Your task to perform on an android device: open app "ColorNote Notepad Notes" (install if not already installed), go to login, and select forgot password Image 0: 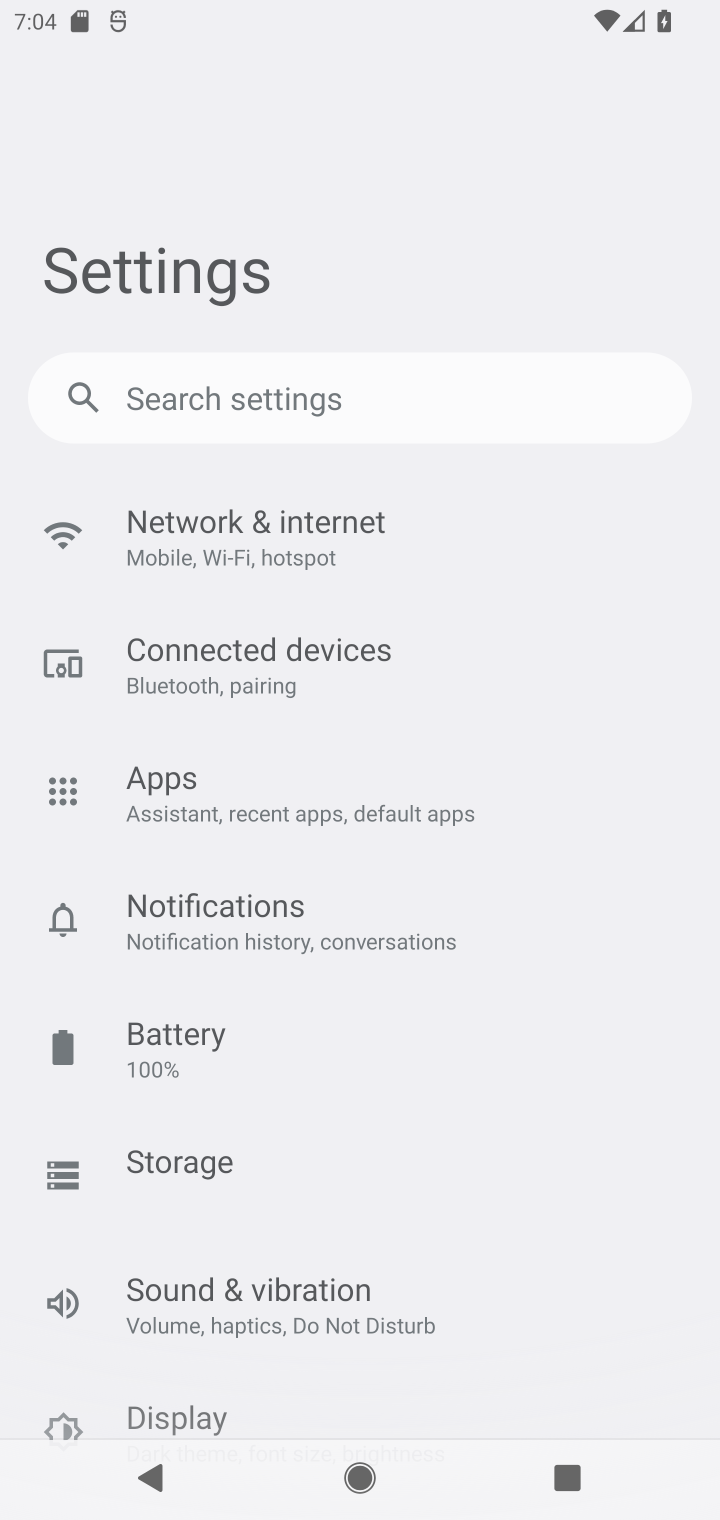
Step 0: press home button
Your task to perform on an android device: open app "ColorNote Notepad Notes" (install if not already installed), go to login, and select forgot password Image 1: 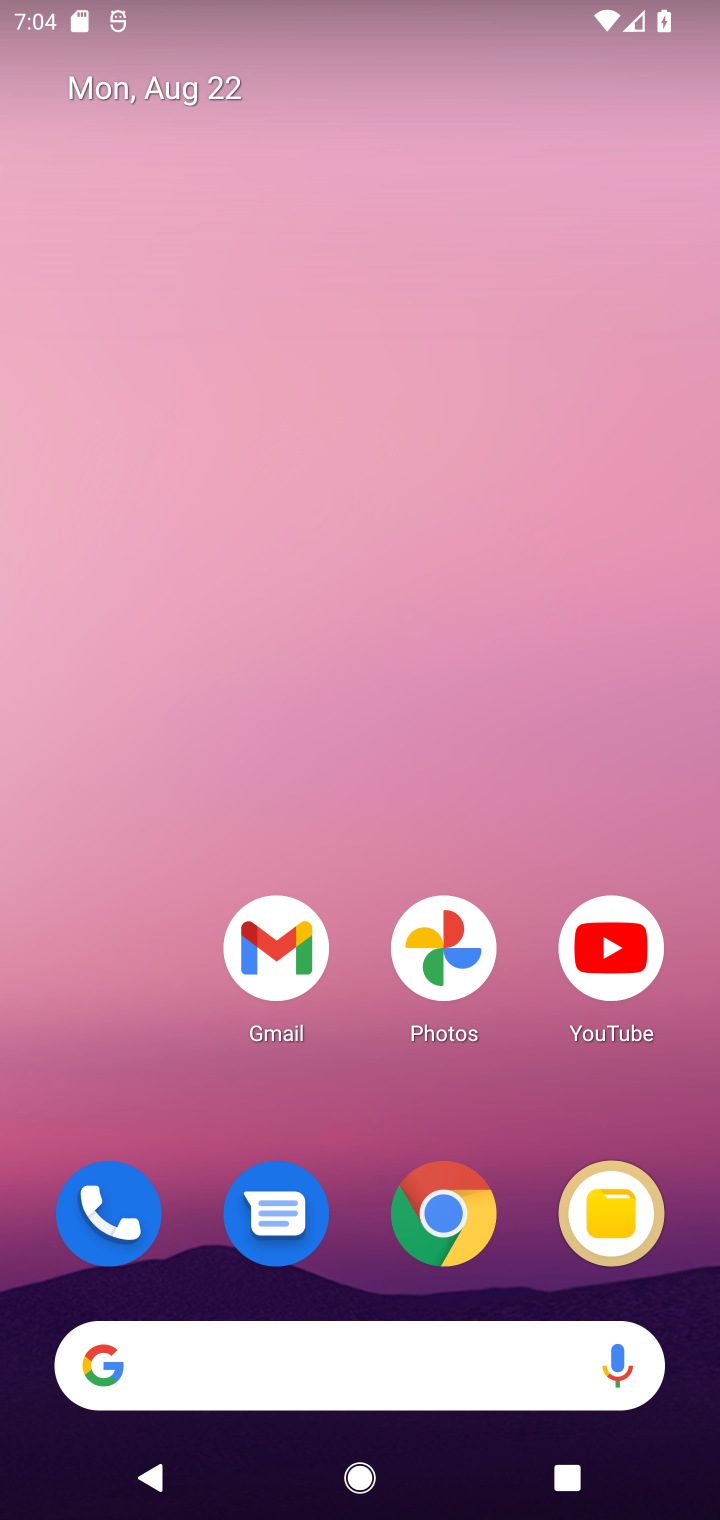
Step 1: drag from (364, 1136) to (440, 4)
Your task to perform on an android device: open app "ColorNote Notepad Notes" (install if not already installed), go to login, and select forgot password Image 2: 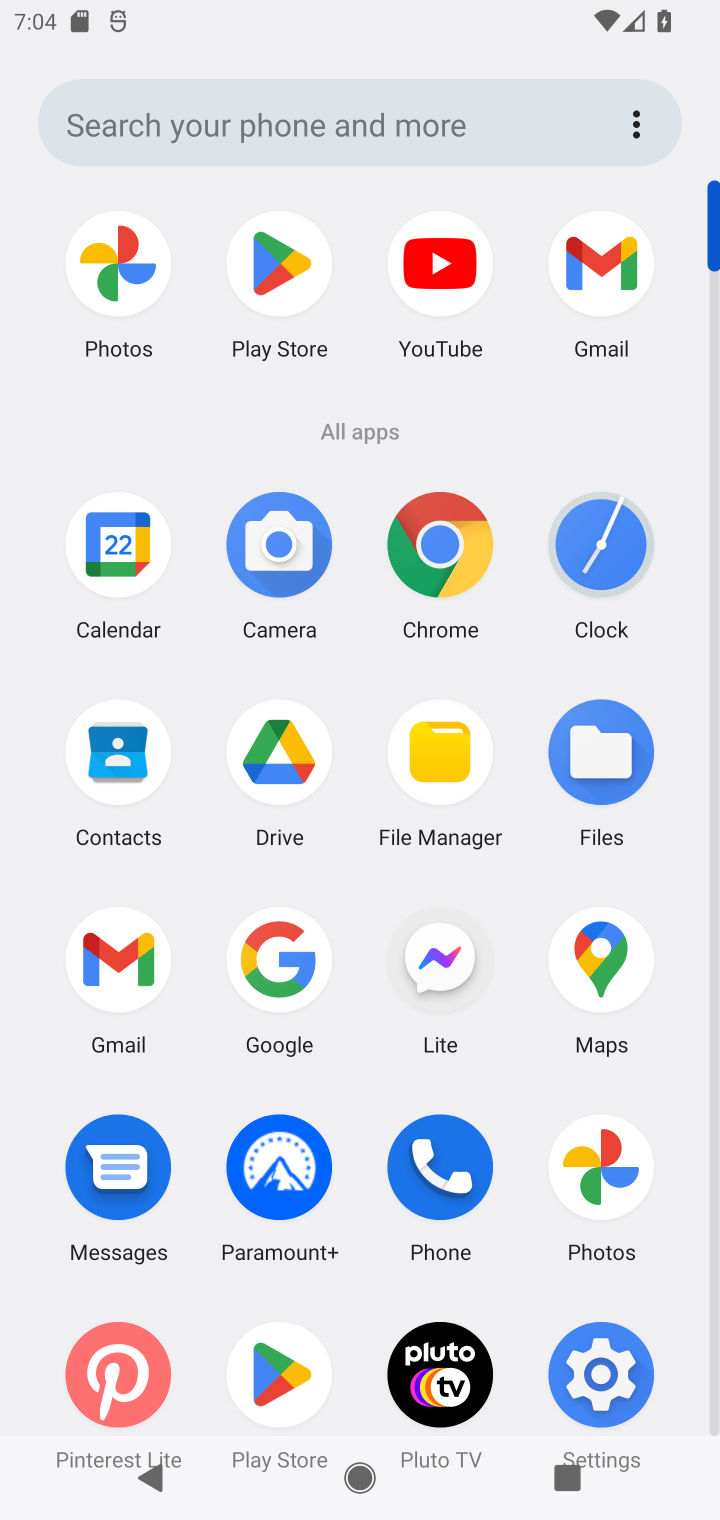
Step 2: click (276, 241)
Your task to perform on an android device: open app "ColorNote Notepad Notes" (install if not already installed), go to login, and select forgot password Image 3: 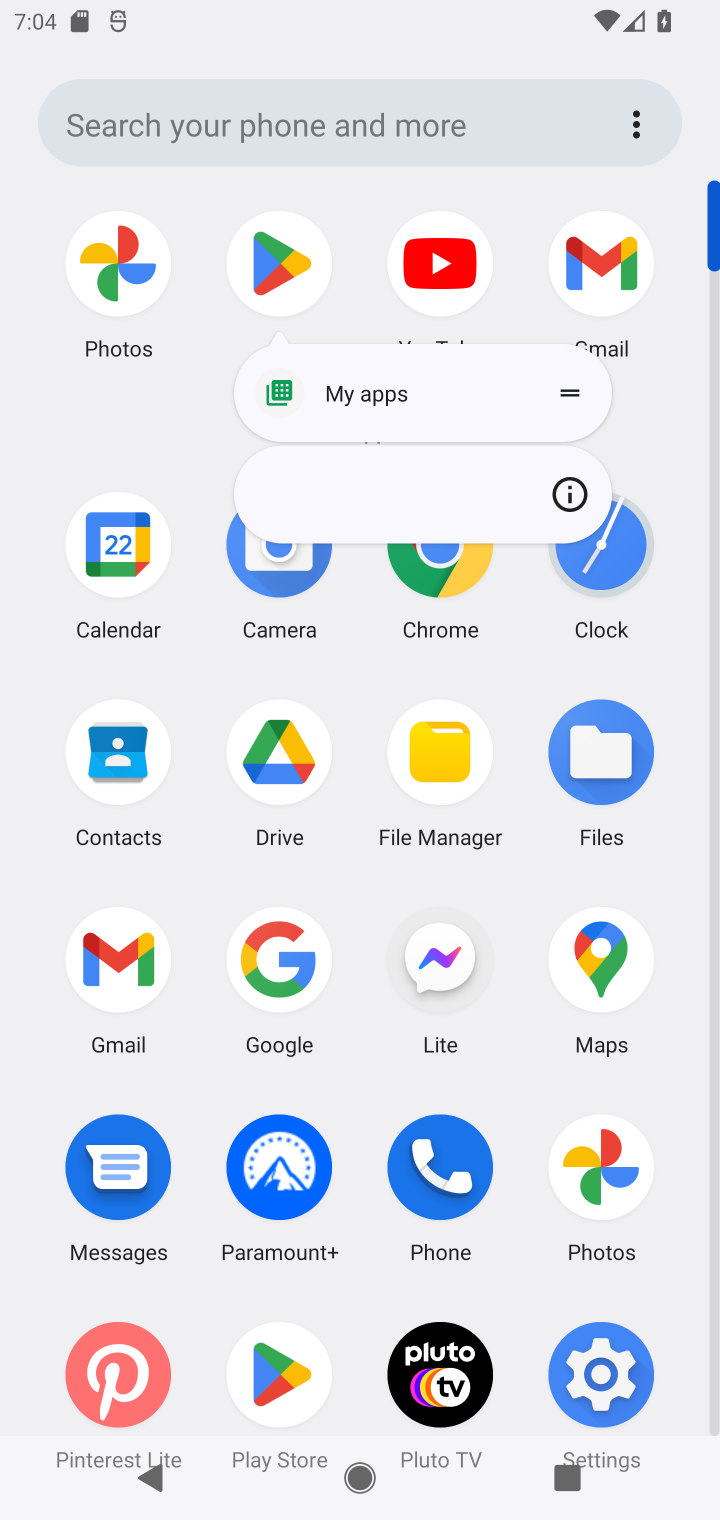
Step 3: click (268, 267)
Your task to perform on an android device: open app "ColorNote Notepad Notes" (install if not already installed), go to login, and select forgot password Image 4: 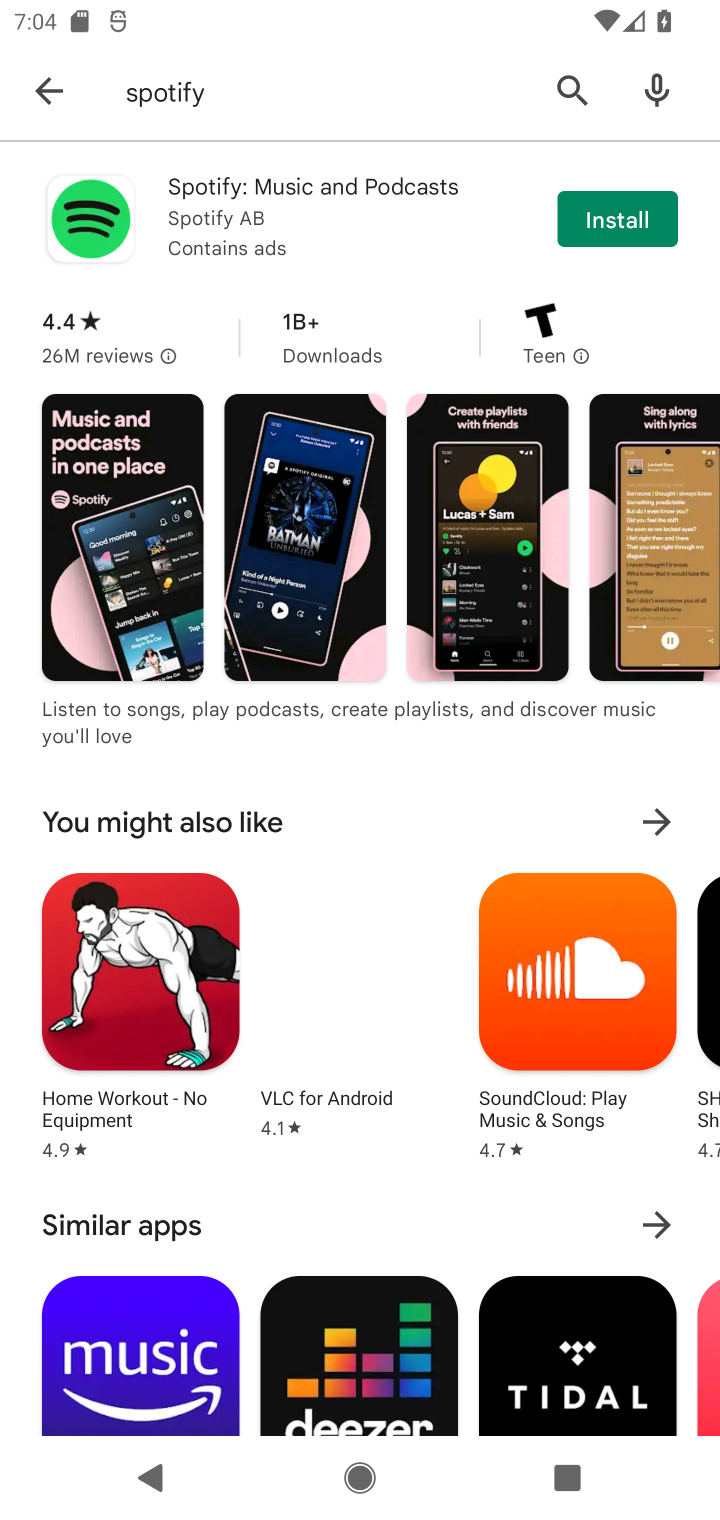
Step 4: click (562, 77)
Your task to perform on an android device: open app "ColorNote Notepad Notes" (install if not already installed), go to login, and select forgot password Image 5: 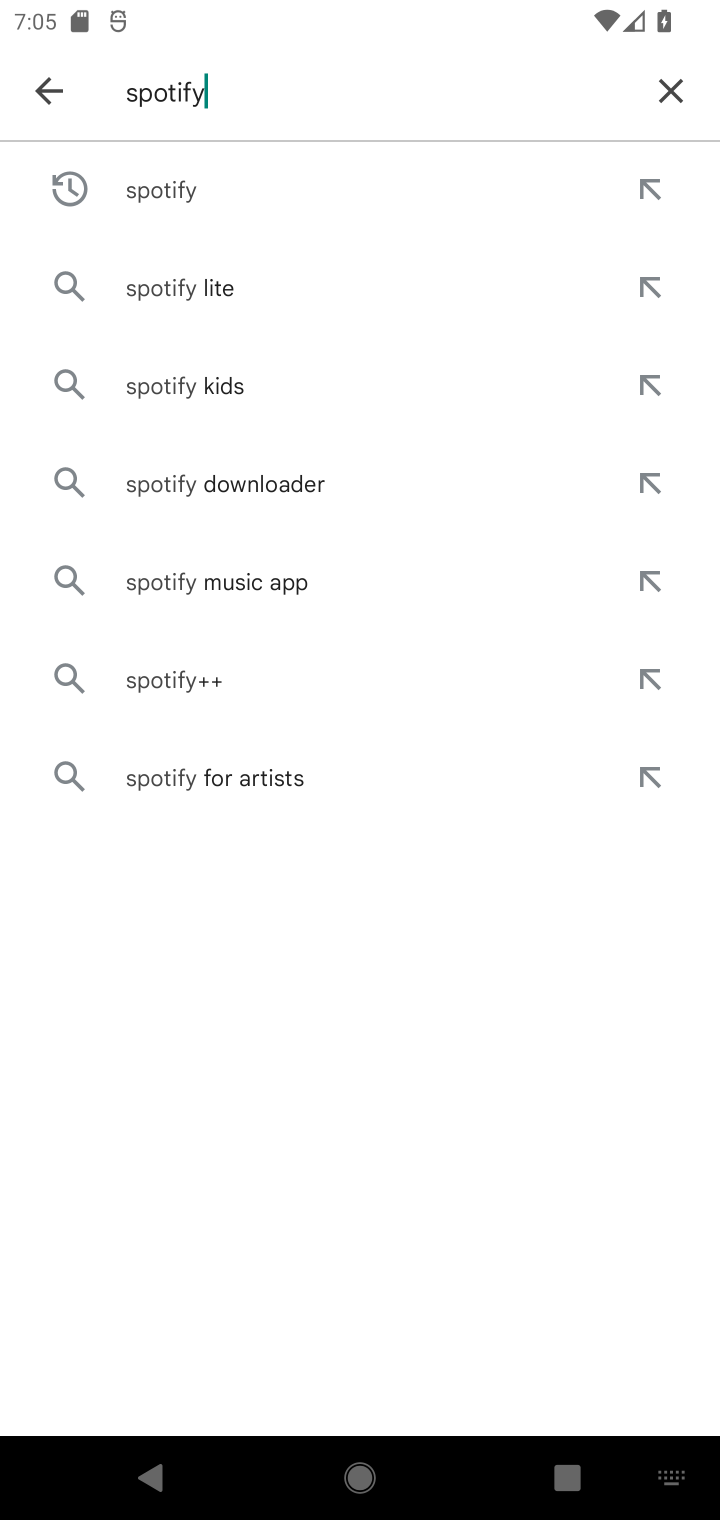
Step 5: click (674, 79)
Your task to perform on an android device: open app "ColorNote Notepad Notes" (install if not already installed), go to login, and select forgot password Image 6: 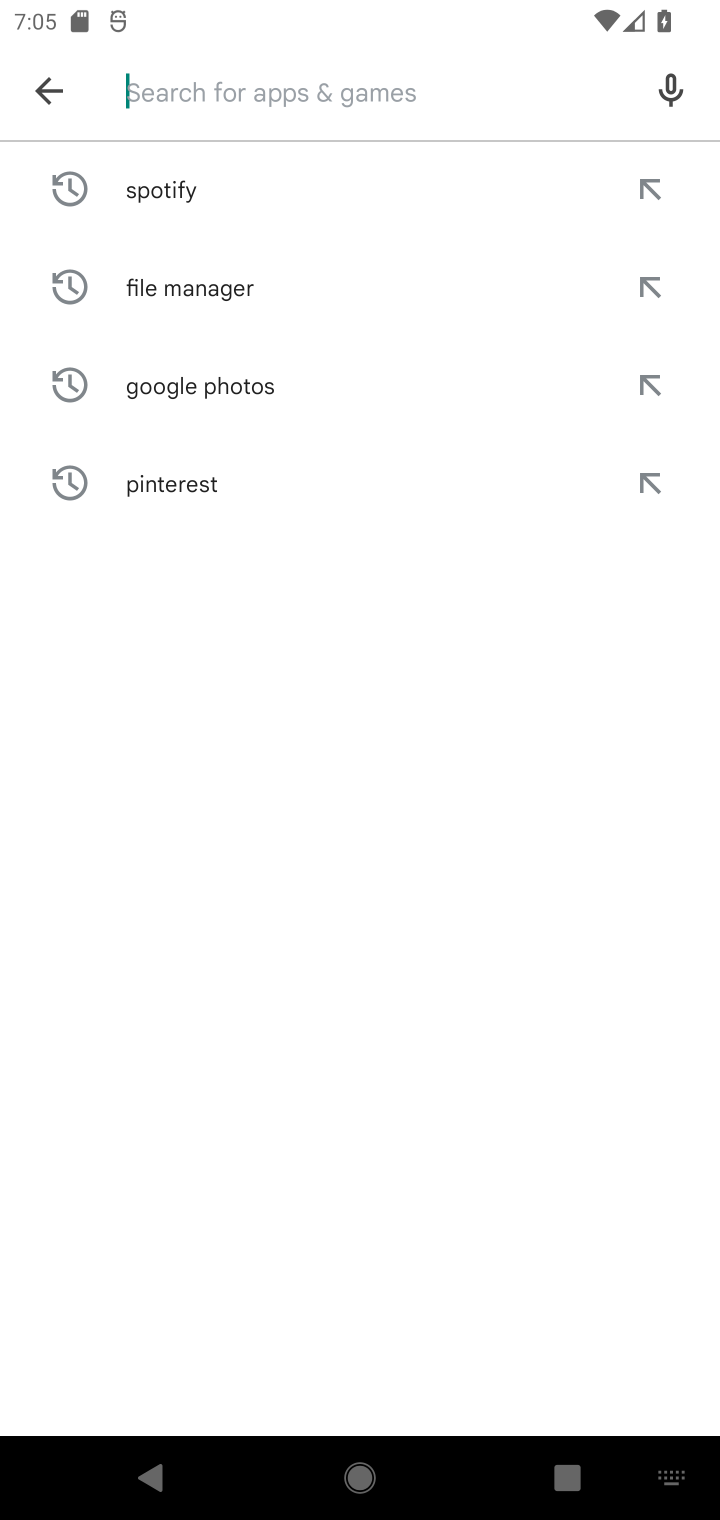
Step 6: type "ColorNote Notepad Notes"
Your task to perform on an android device: open app "ColorNote Notepad Notes" (install if not already installed), go to login, and select forgot password Image 7: 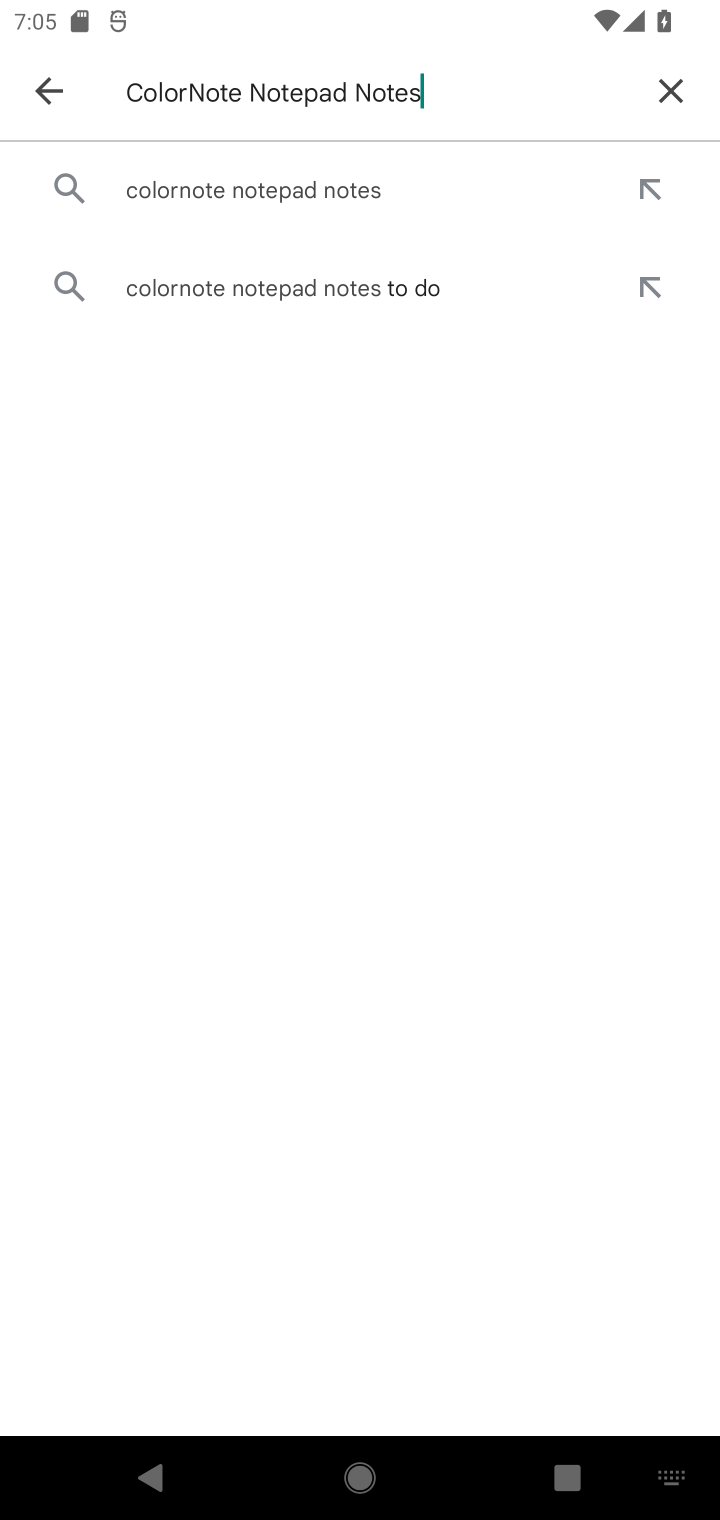
Step 7: click (338, 192)
Your task to perform on an android device: open app "ColorNote Notepad Notes" (install if not already installed), go to login, and select forgot password Image 8: 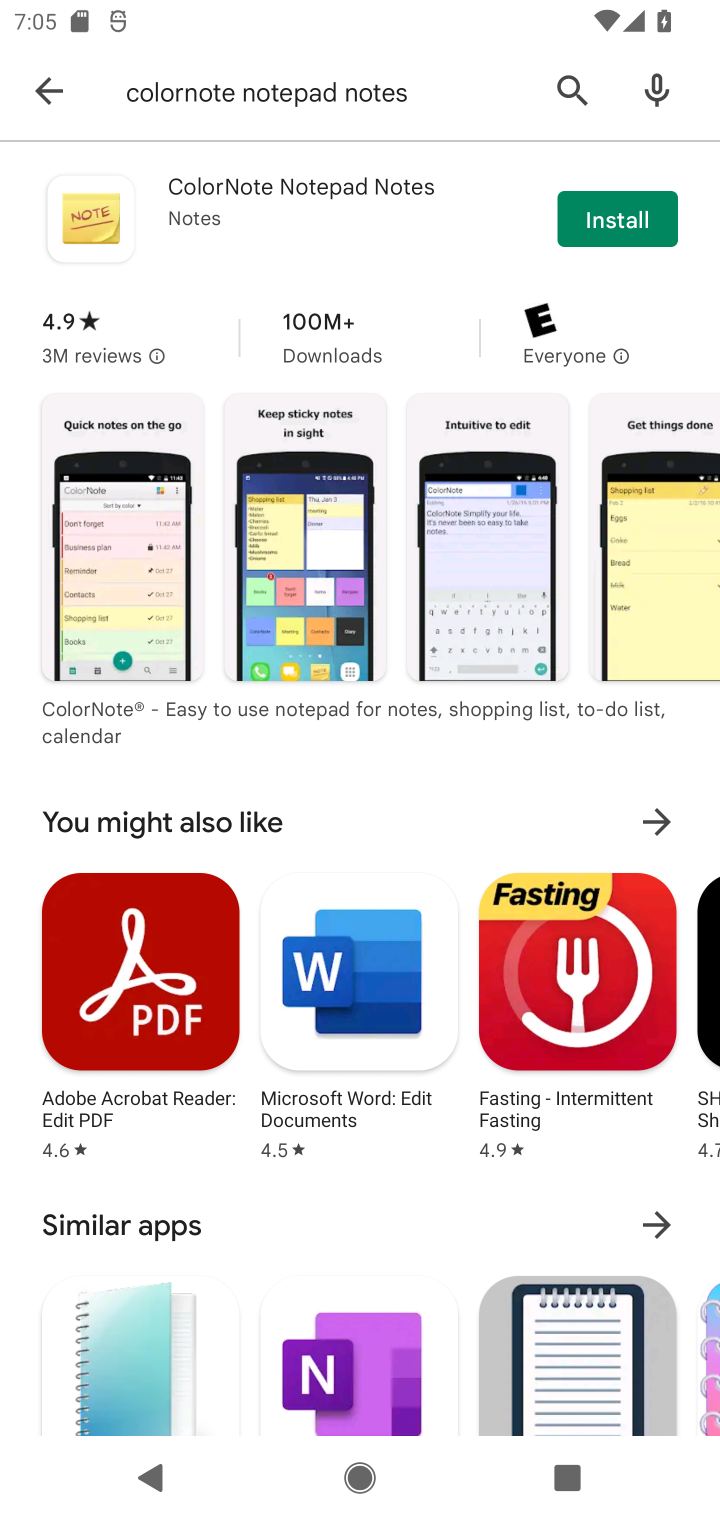
Step 8: click (624, 234)
Your task to perform on an android device: open app "ColorNote Notepad Notes" (install if not already installed), go to login, and select forgot password Image 9: 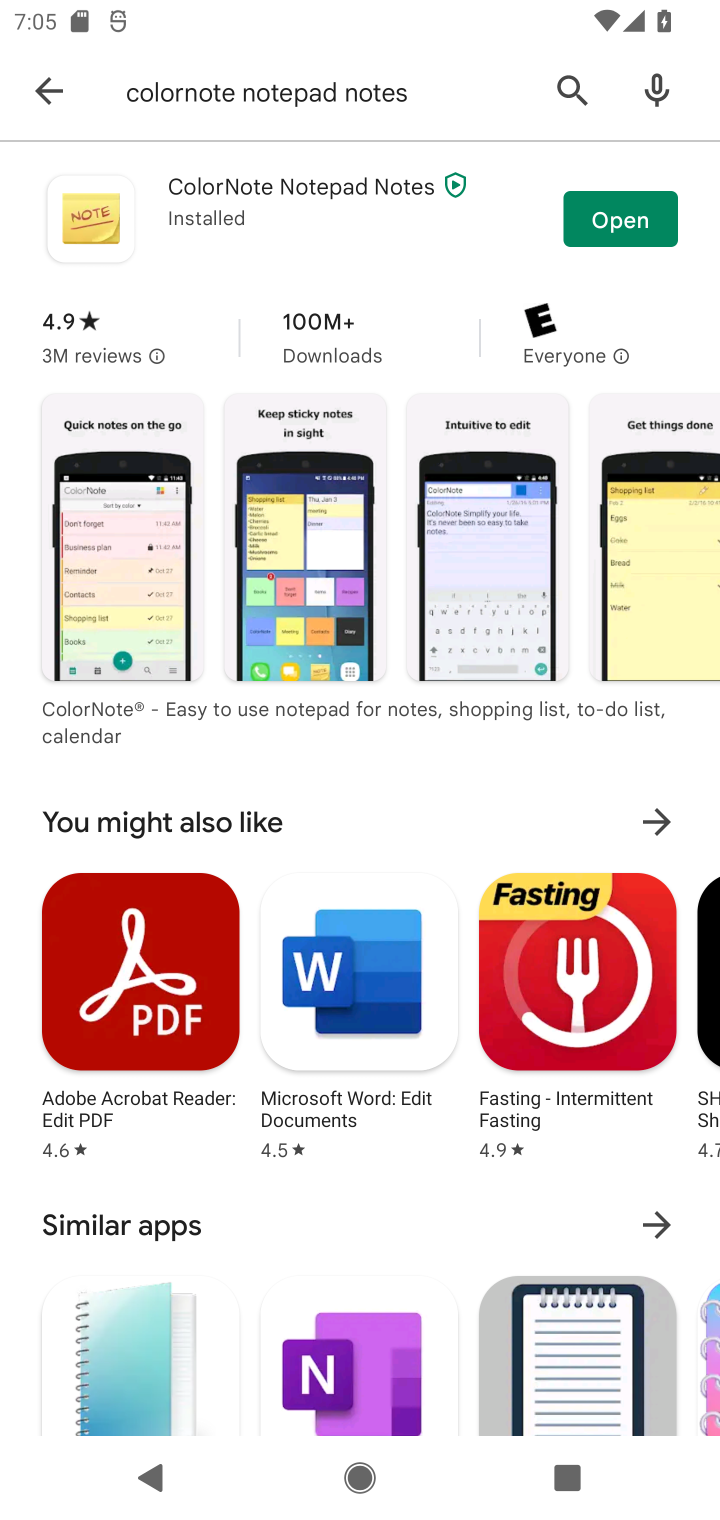
Step 9: click (642, 223)
Your task to perform on an android device: open app "ColorNote Notepad Notes" (install if not already installed), go to login, and select forgot password Image 10: 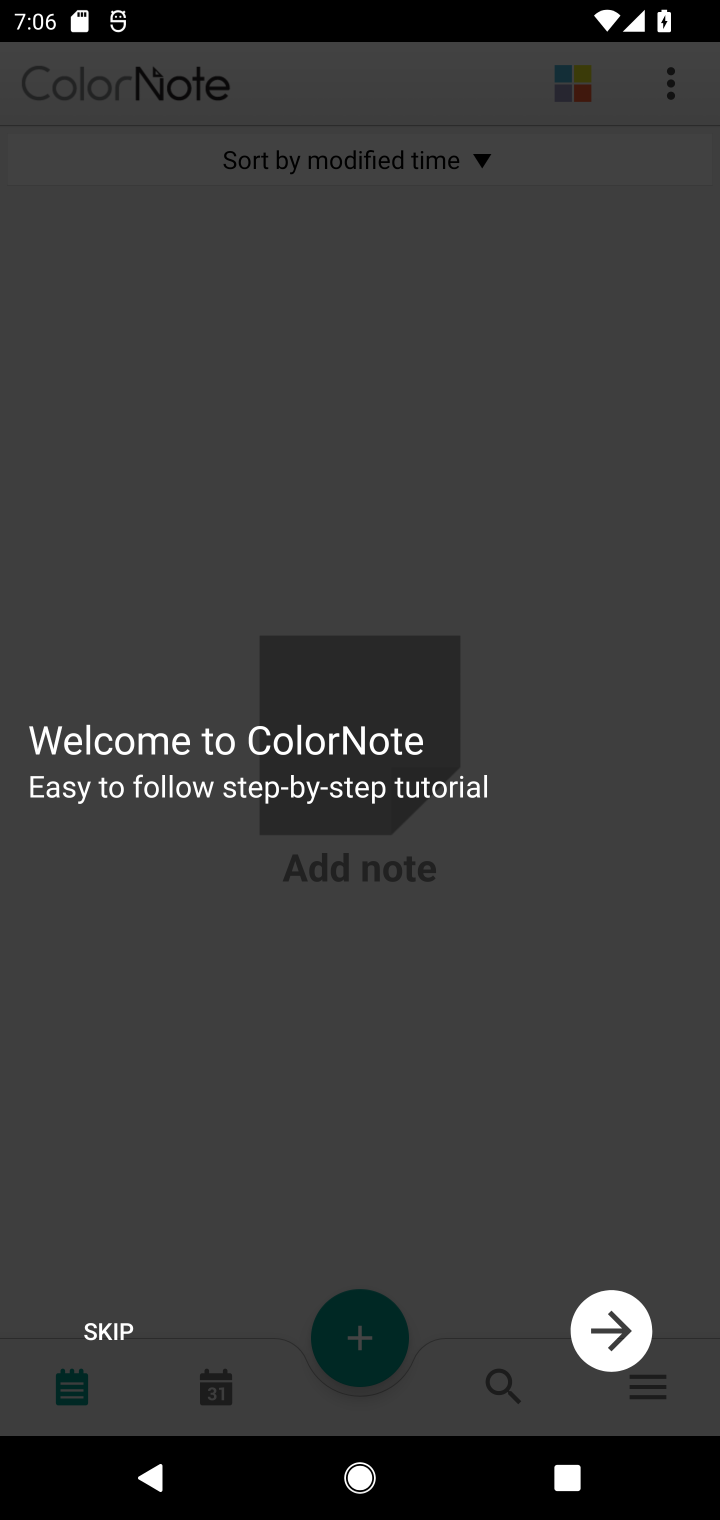
Step 10: click (127, 1329)
Your task to perform on an android device: open app "ColorNote Notepad Notes" (install if not already installed), go to login, and select forgot password Image 11: 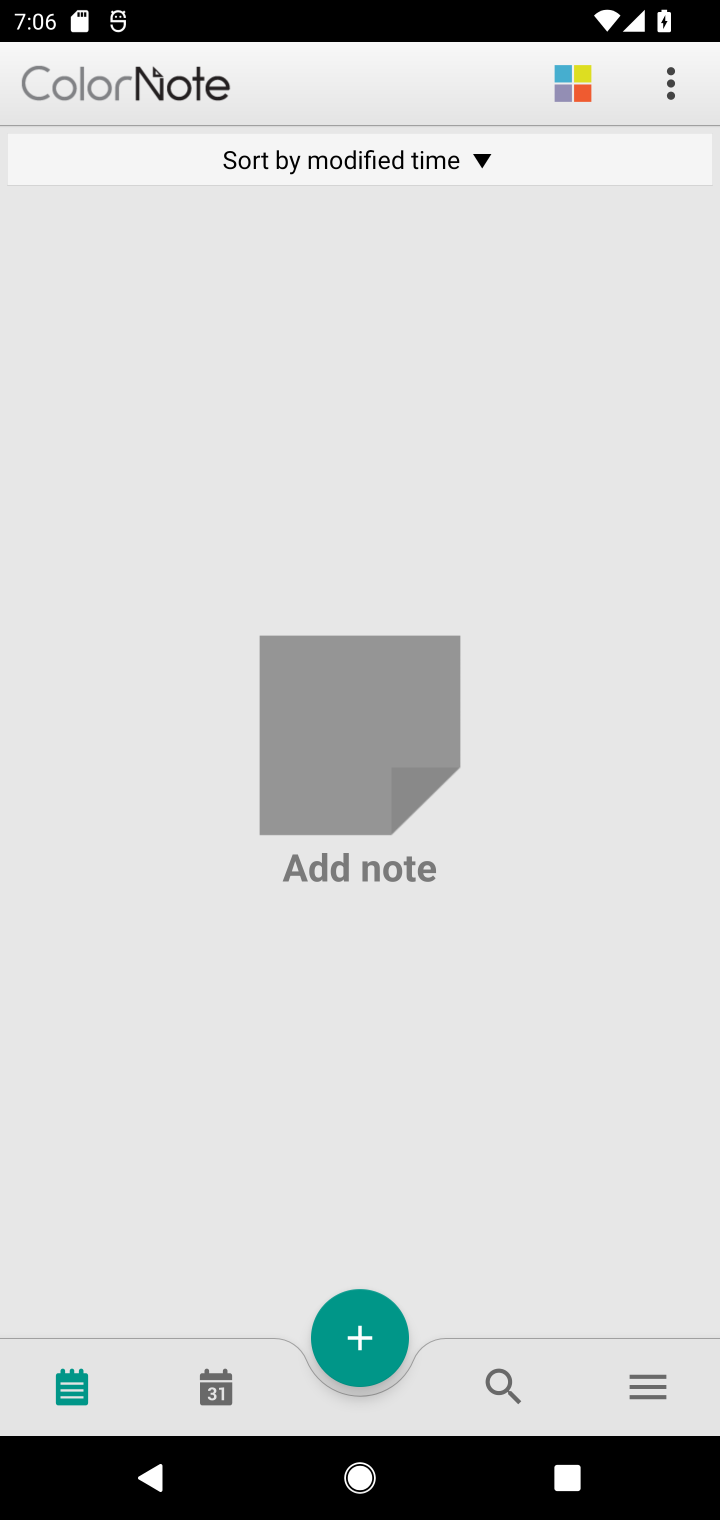
Step 11: click (630, 1390)
Your task to perform on an android device: open app "ColorNote Notepad Notes" (install if not already installed), go to login, and select forgot password Image 12: 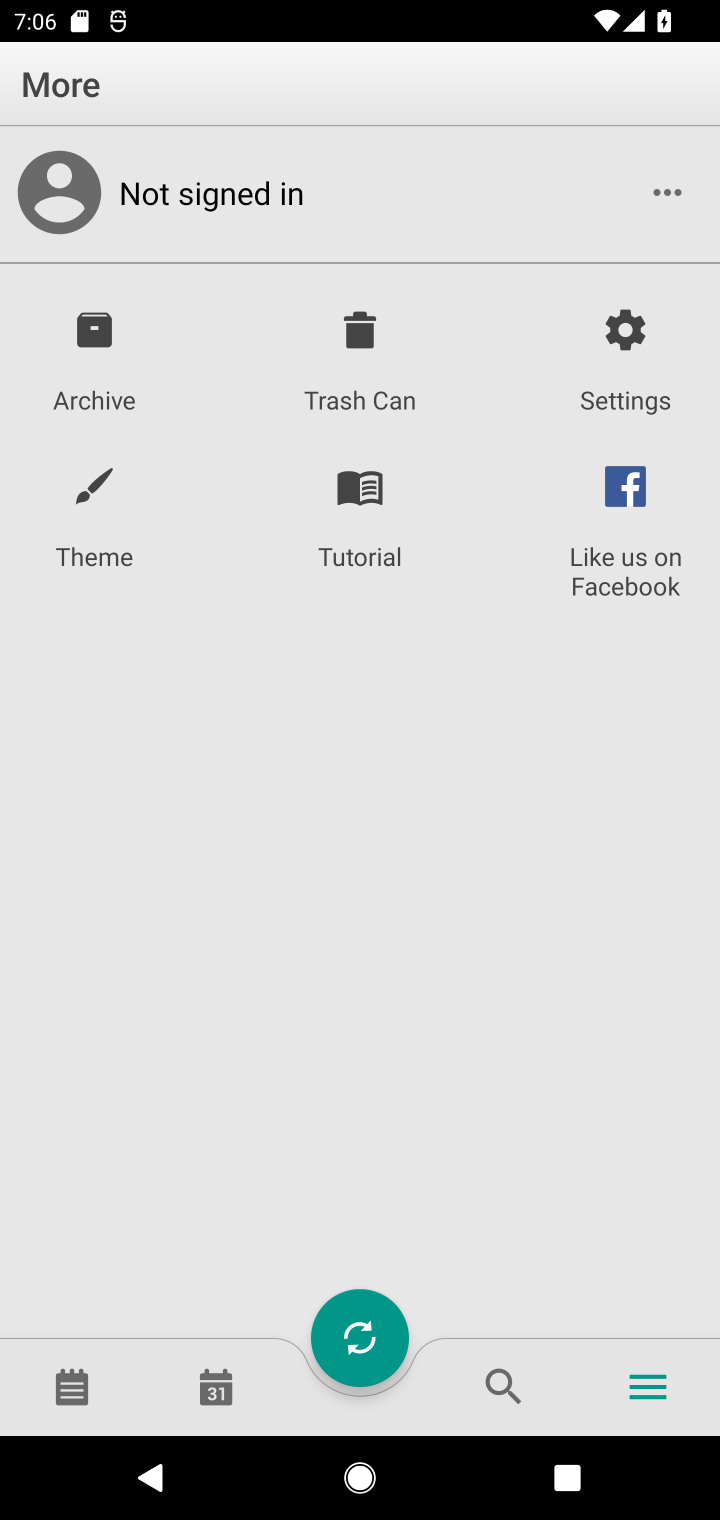
Step 12: click (167, 193)
Your task to perform on an android device: open app "ColorNote Notepad Notes" (install if not already installed), go to login, and select forgot password Image 13: 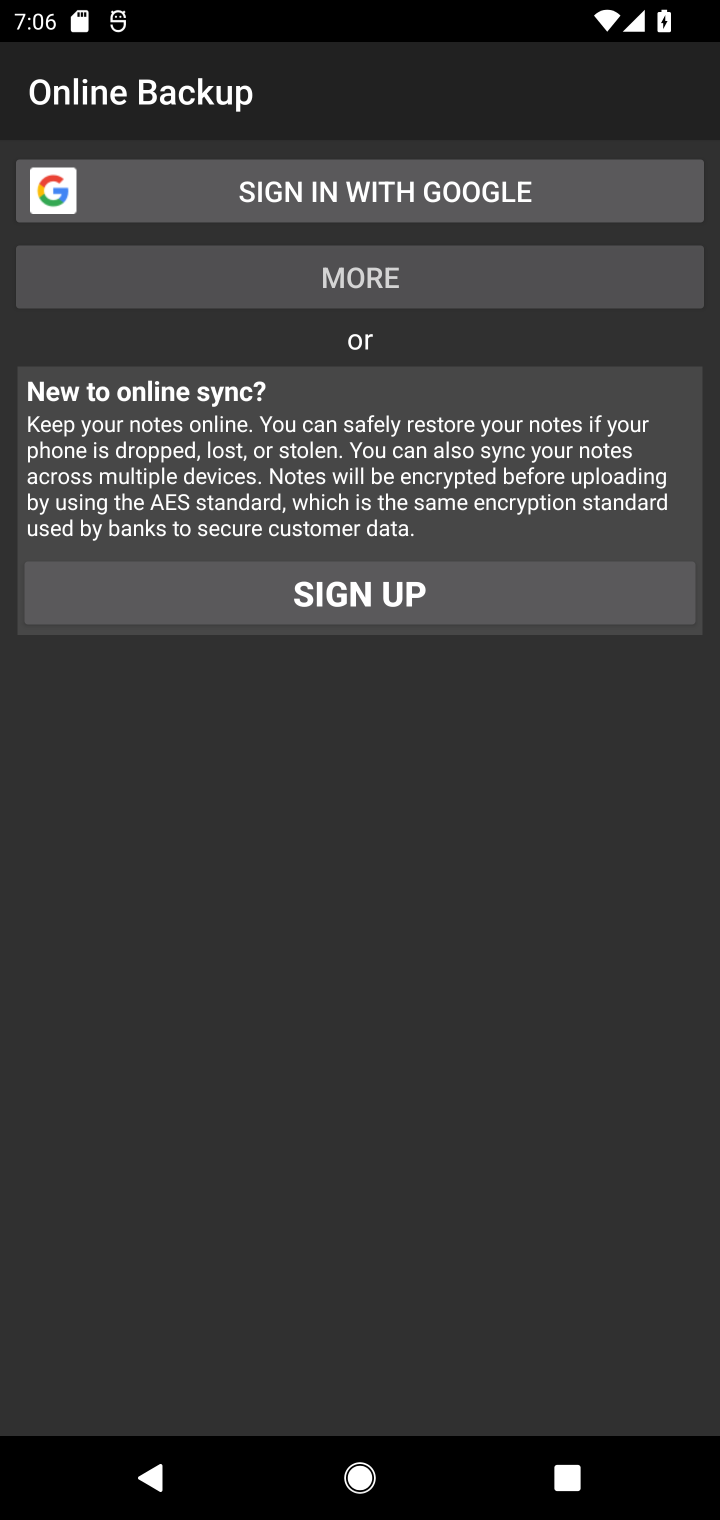
Step 13: click (372, 280)
Your task to perform on an android device: open app "ColorNote Notepad Notes" (install if not already installed), go to login, and select forgot password Image 14: 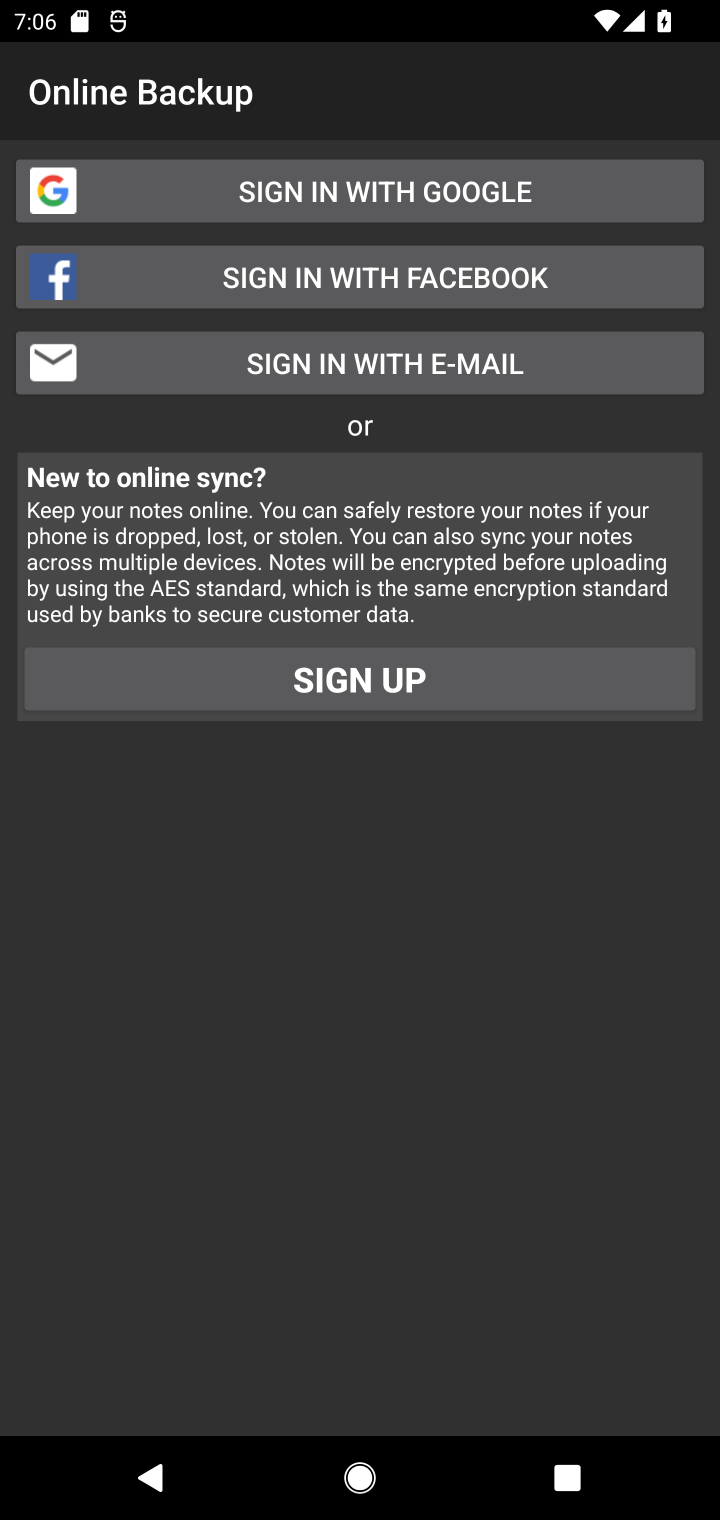
Step 14: task complete